Your task to perform on an android device: clear all cookies in the chrome app Image 0: 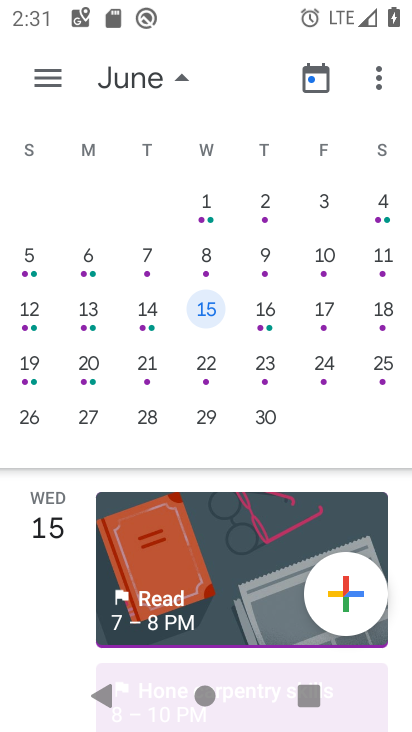
Step 0: press home button
Your task to perform on an android device: clear all cookies in the chrome app Image 1: 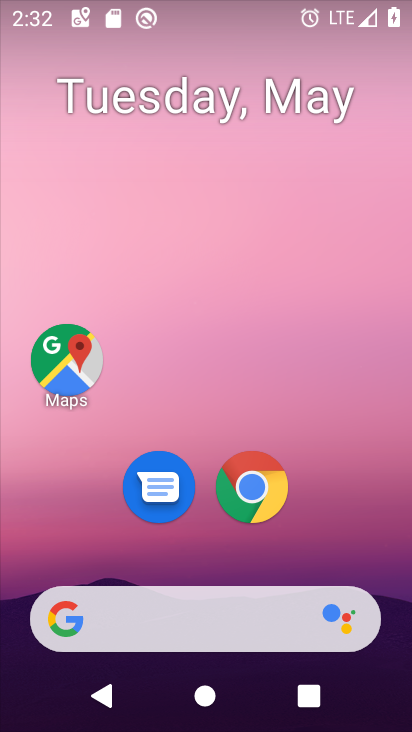
Step 1: click (258, 480)
Your task to perform on an android device: clear all cookies in the chrome app Image 2: 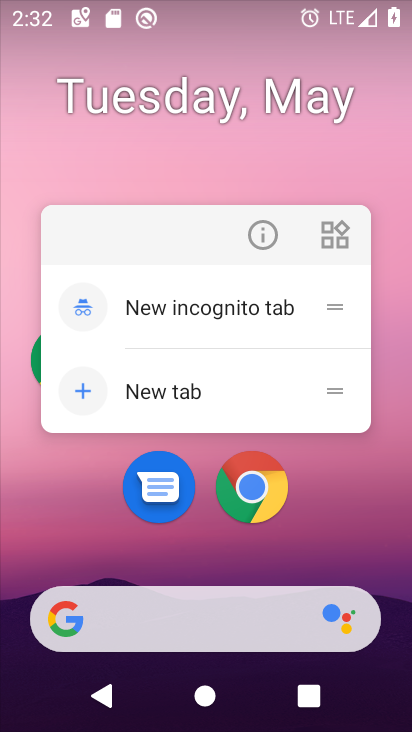
Step 2: click (260, 487)
Your task to perform on an android device: clear all cookies in the chrome app Image 3: 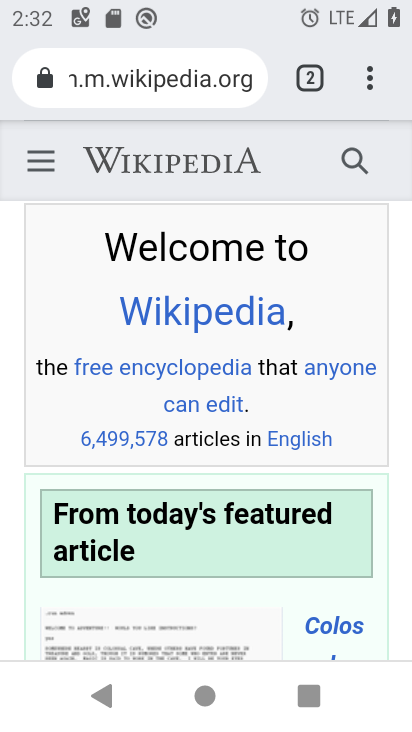
Step 3: click (355, 82)
Your task to perform on an android device: clear all cookies in the chrome app Image 4: 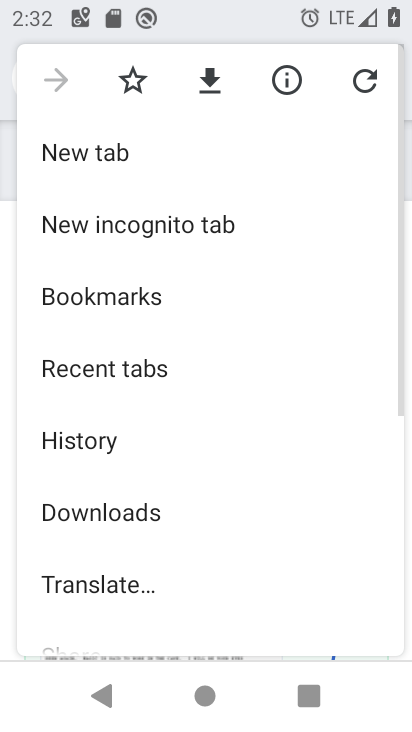
Step 4: click (121, 441)
Your task to perform on an android device: clear all cookies in the chrome app Image 5: 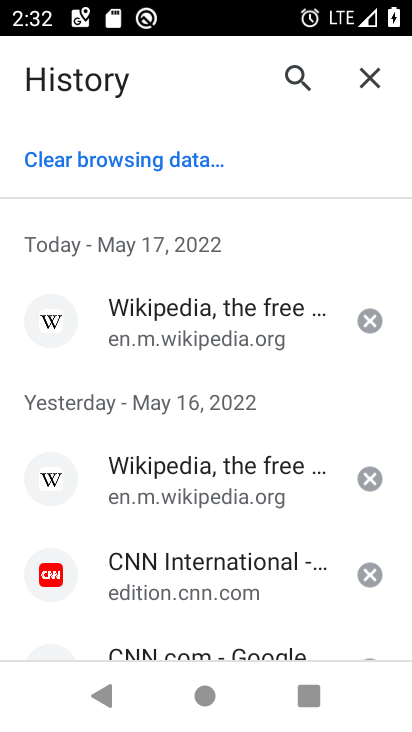
Step 5: click (157, 168)
Your task to perform on an android device: clear all cookies in the chrome app Image 6: 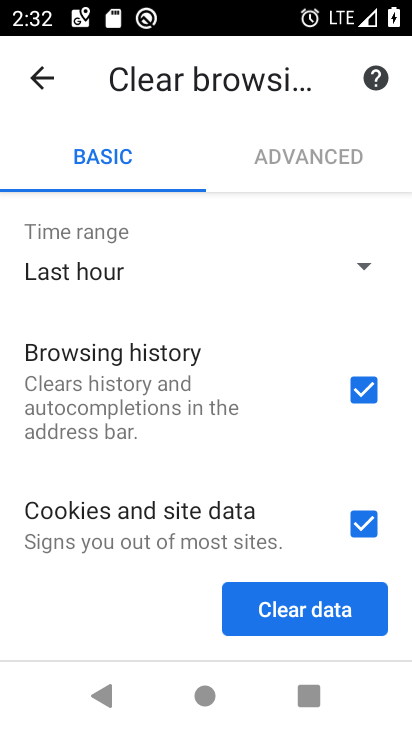
Step 6: click (368, 405)
Your task to perform on an android device: clear all cookies in the chrome app Image 7: 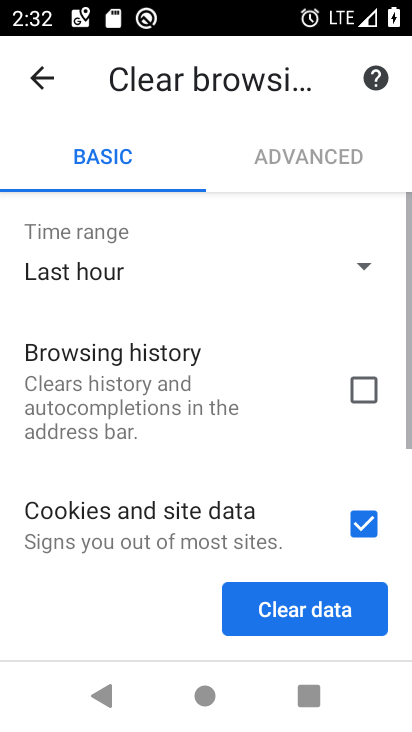
Step 7: click (325, 615)
Your task to perform on an android device: clear all cookies in the chrome app Image 8: 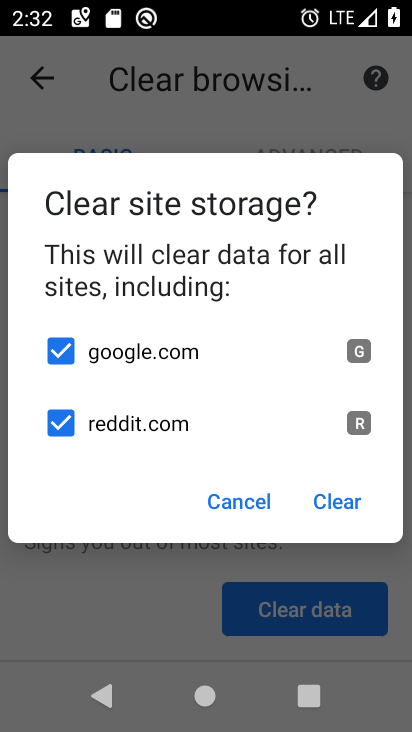
Step 8: task complete